Your task to perform on an android device: toggle airplane mode Image 0: 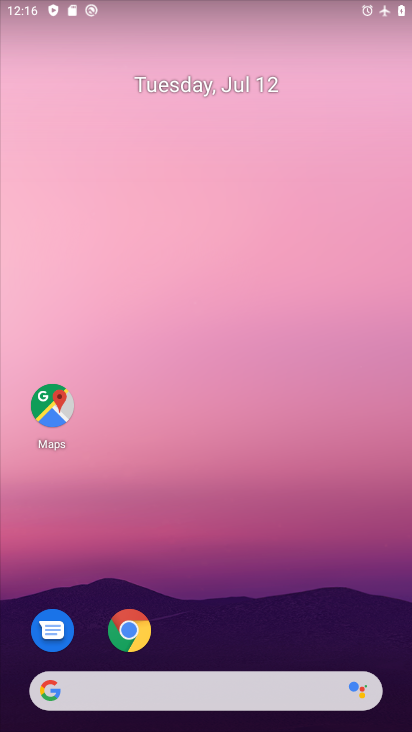
Step 0: drag from (341, 630) to (266, 54)
Your task to perform on an android device: toggle airplane mode Image 1: 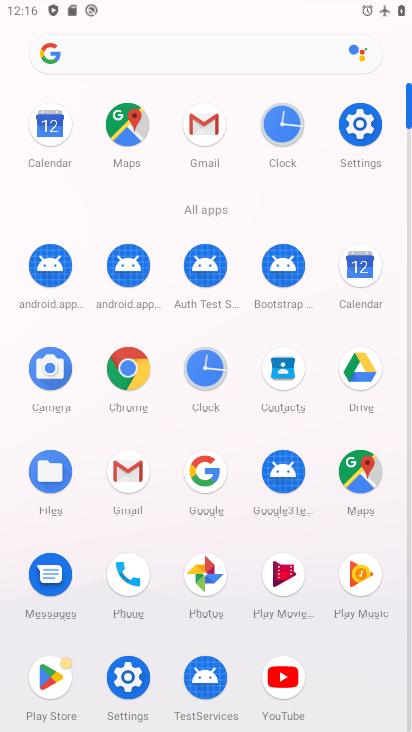
Step 1: click (126, 679)
Your task to perform on an android device: toggle airplane mode Image 2: 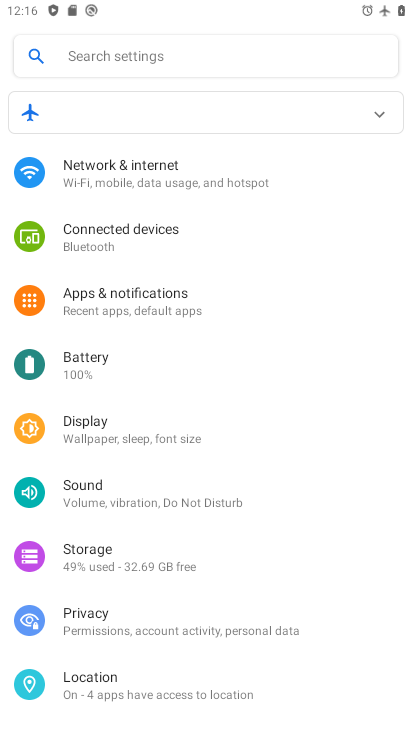
Step 2: click (85, 161)
Your task to perform on an android device: toggle airplane mode Image 3: 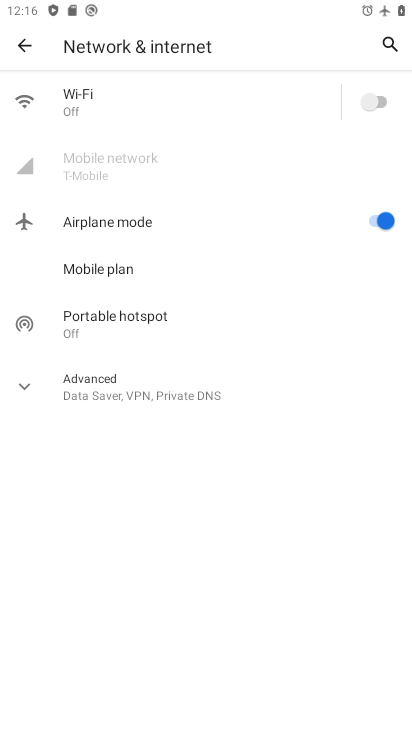
Step 3: click (366, 219)
Your task to perform on an android device: toggle airplane mode Image 4: 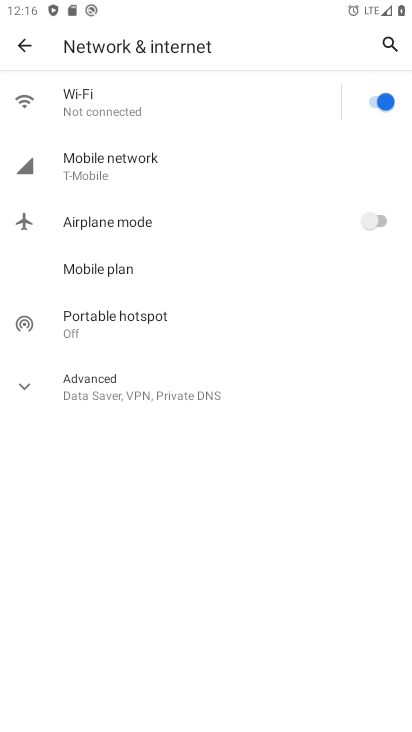
Step 4: task complete